Your task to perform on an android device: Open eBay Image 0: 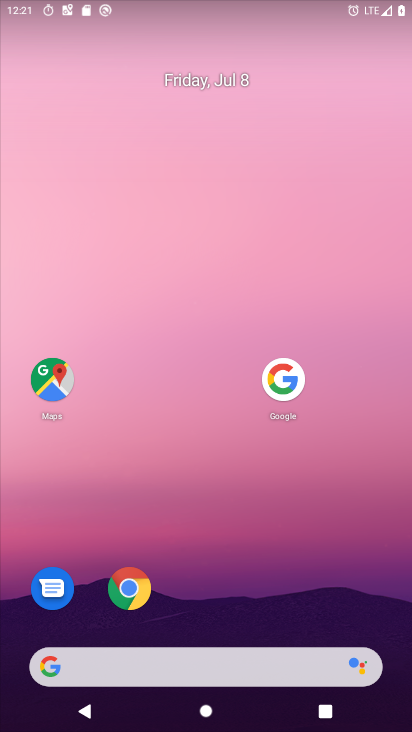
Step 0: click (128, 595)
Your task to perform on an android device: Open eBay Image 1: 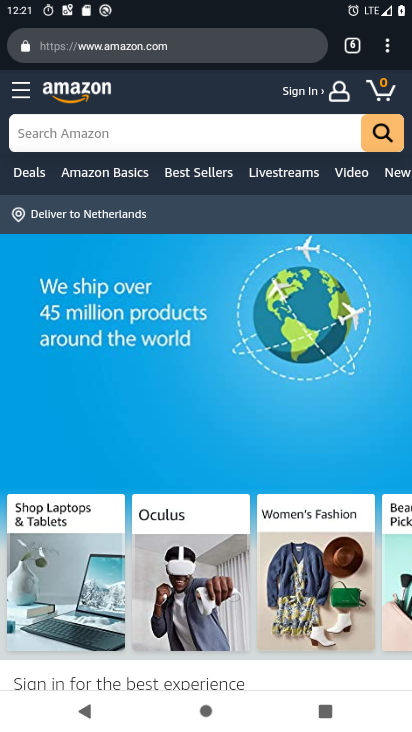
Step 1: drag from (391, 47) to (256, 91)
Your task to perform on an android device: Open eBay Image 2: 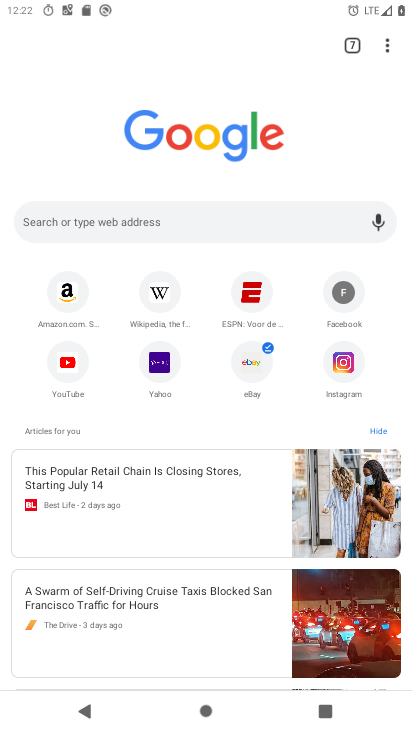
Step 2: click (248, 366)
Your task to perform on an android device: Open eBay Image 3: 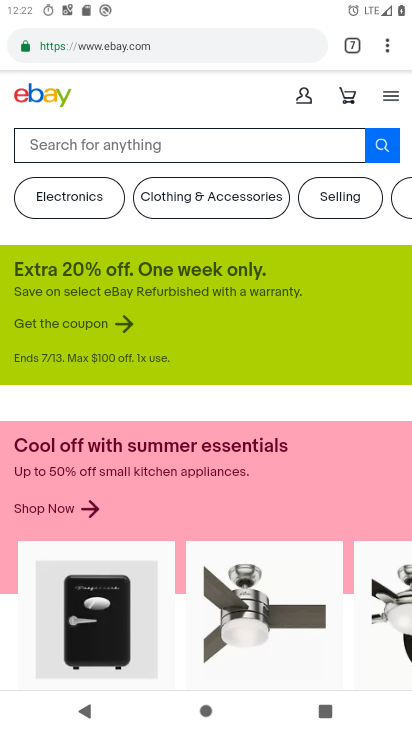
Step 3: drag from (180, 552) to (241, 437)
Your task to perform on an android device: Open eBay Image 4: 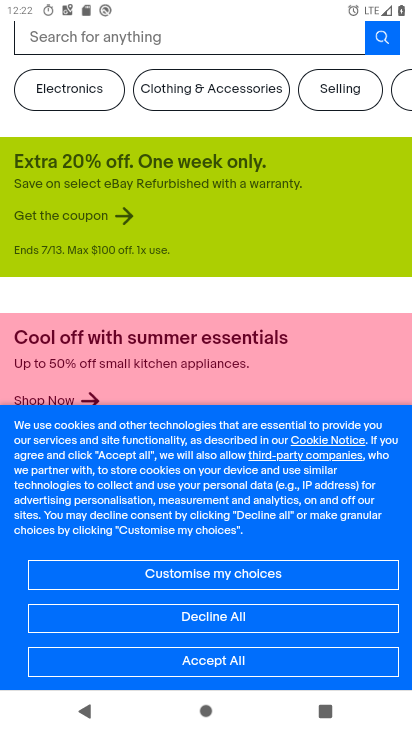
Step 4: click (226, 667)
Your task to perform on an android device: Open eBay Image 5: 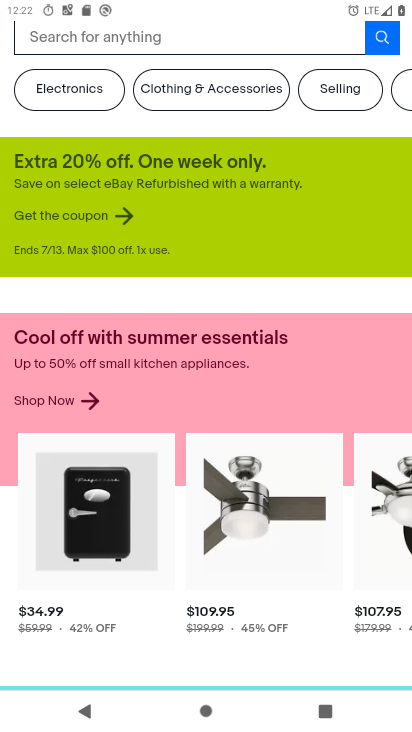
Step 5: task complete